Your task to perform on an android device: Open Chrome and go to settings Image 0: 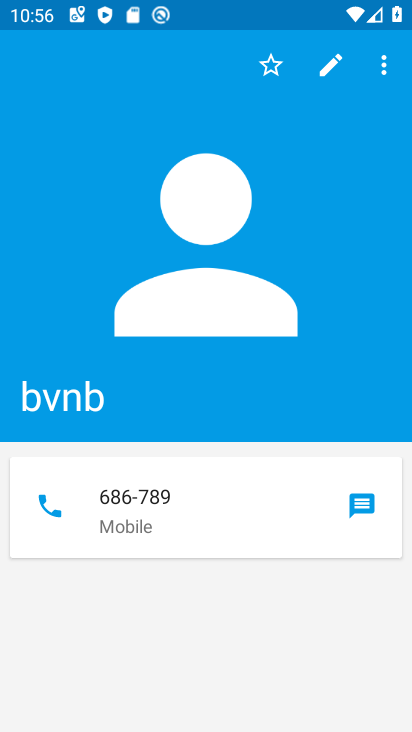
Step 0: press home button
Your task to perform on an android device: Open Chrome and go to settings Image 1: 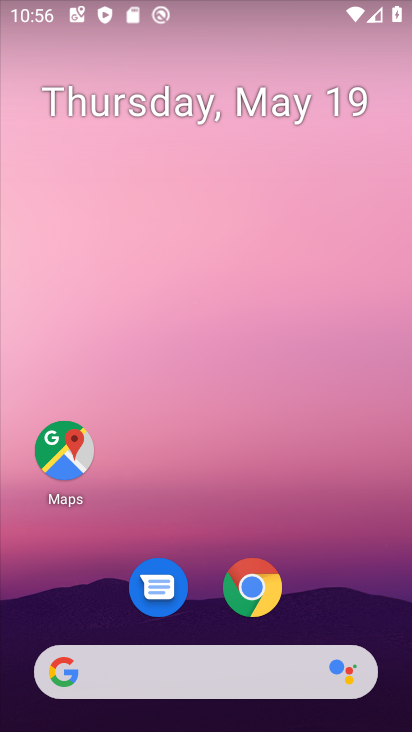
Step 1: click (251, 589)
Your task to perform on an android device: Open Chrome and go to settings Image 2: 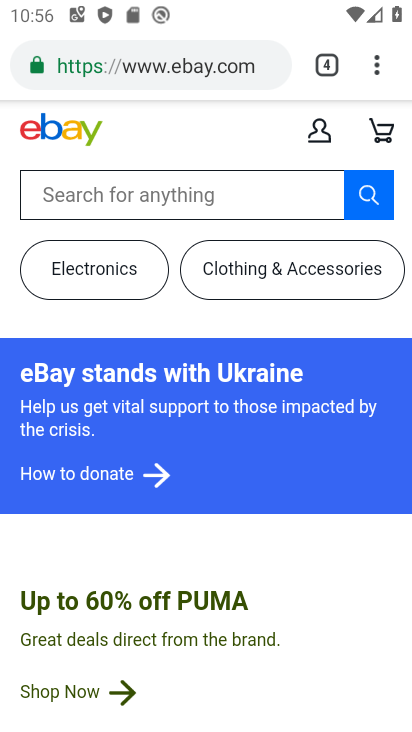
Step 2: click (367, 59)
Your task to perform on an android device: Open Chrome and go to settings Image 3: 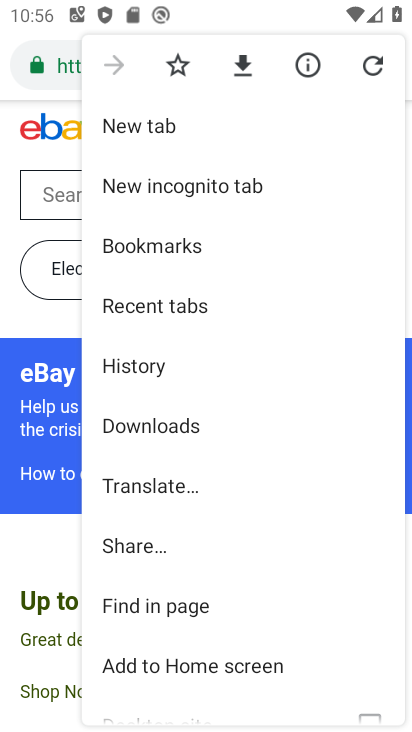
Step 3: drag from (159, 602) to (141, 210)
Your task to perform on an android device: Open Chrome and go to settings Image 4: 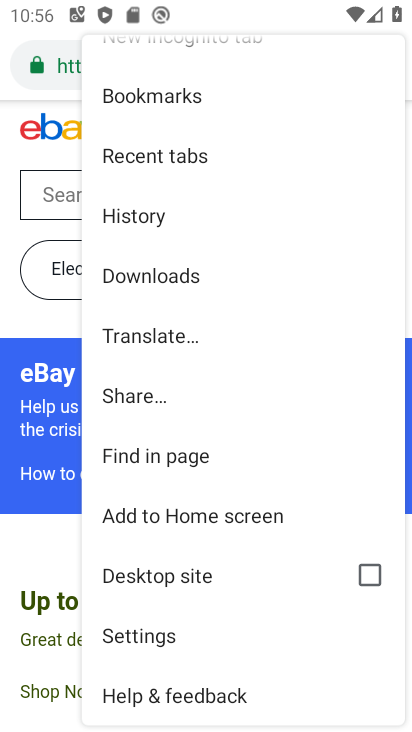
Step 4: click (126, 631)
Your task to perform on an android device: Open Chrome and go to settings Image 5: 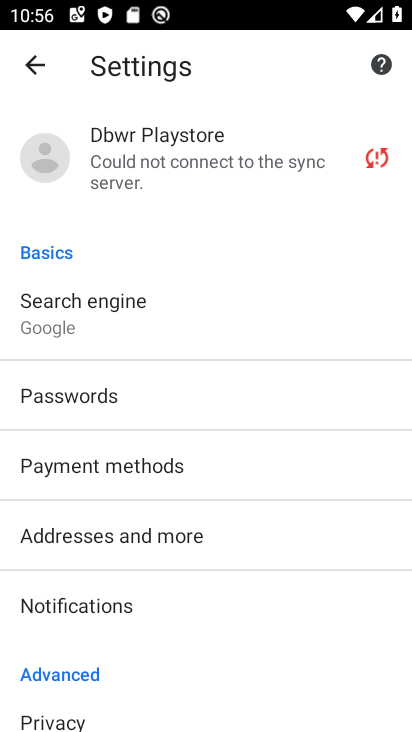
Step 5: task complete